Your task to perform on an android device: See recent photos Image 0: 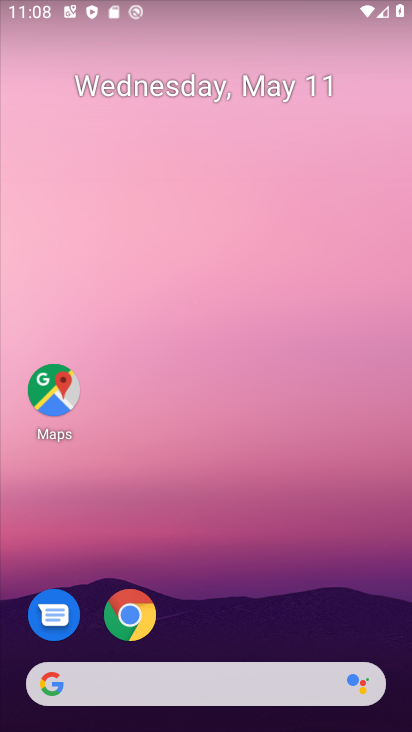
Step 0: drag from (242, 571) to (196, 160)
Your task to perform on an android device: See recent photos Image 1: 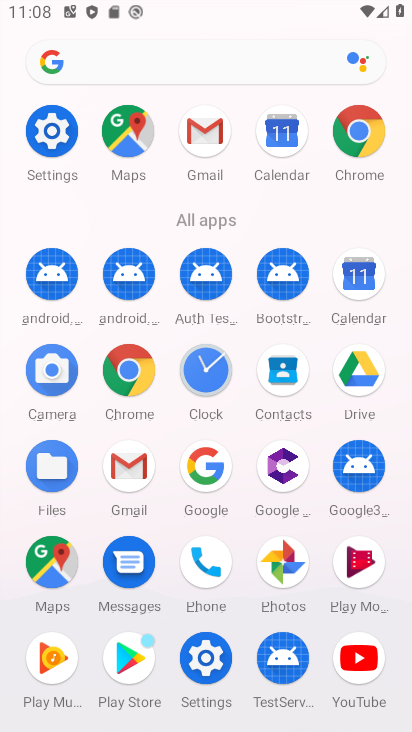
Step 1: click (280, 550)
Your task to perform on an android device: See recent photos Image 2: 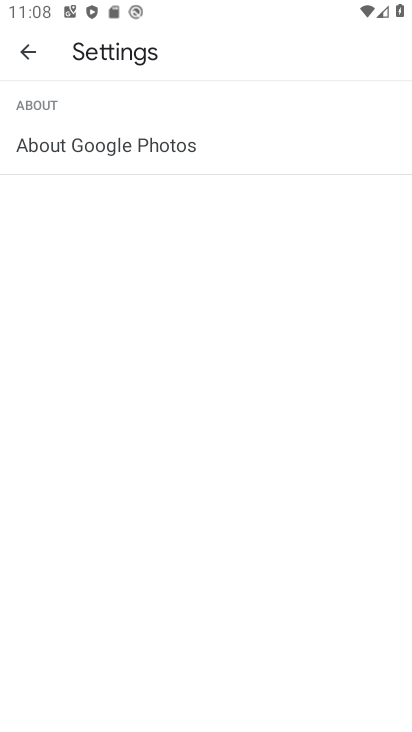
Step 2: click (33, 50)
Your task to perform on an android device: See recent photos Image 3: 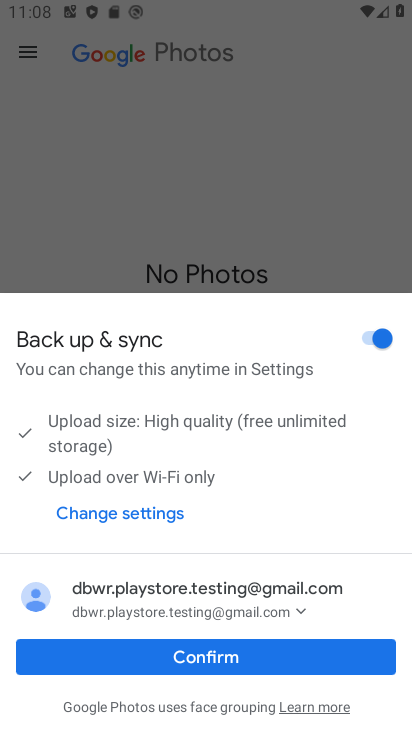
Step 3: click (204, 659)
Your task to perform on an android device: See recent photos Image 4: 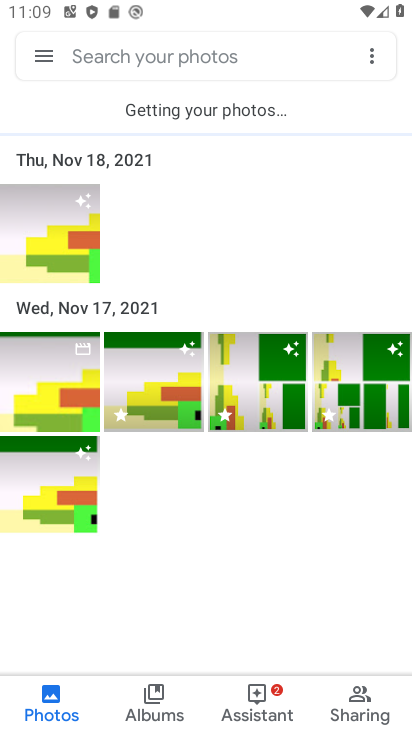
Step 4: task complete